Your task to perform on an android device: See recent photos Image 0: 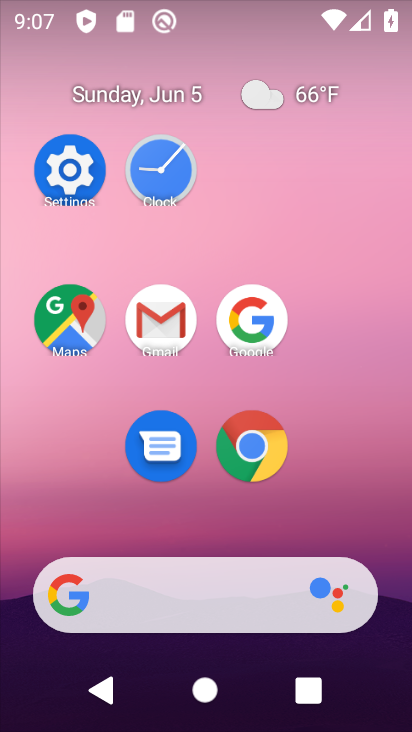
Step 0: drag from (353, 479) to (334, 159)
Your task to perform on an android device: See recent photos Image 1: 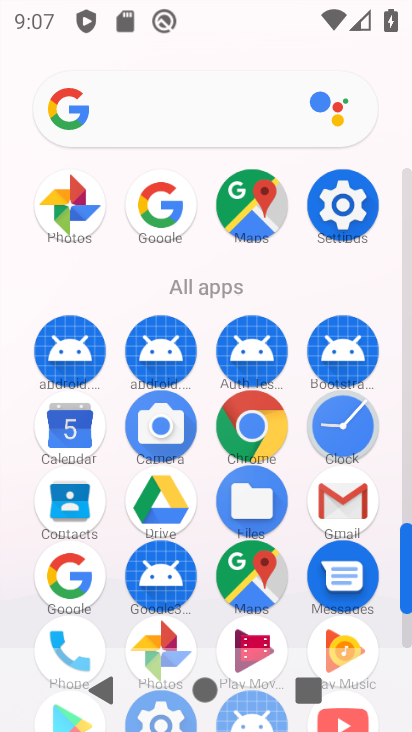
Step 1: drag from (163, 646) to (295, 287)
Your task to perform on an android device: See recent photos Image 2: 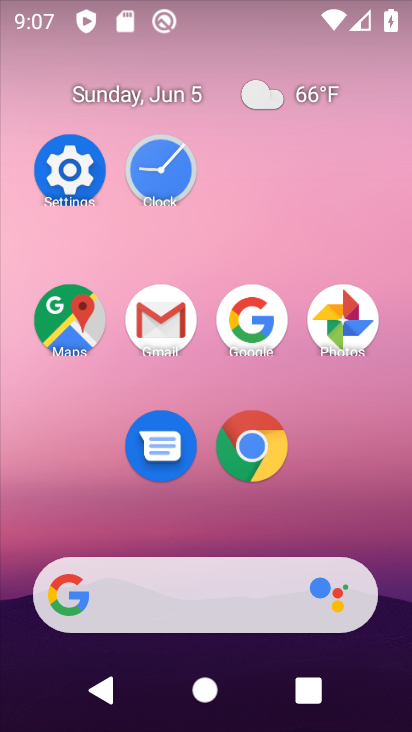
Step 2: click (338, 318)
Your task to perform on an android device: See recent photos Image 3: 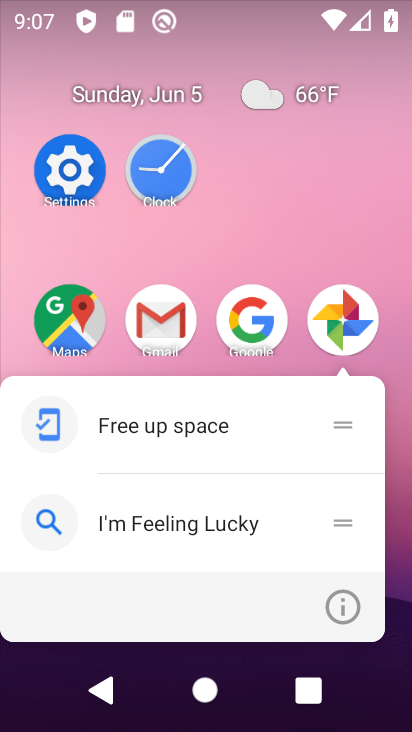
Step 3: click (338, 319)
Your task to perform on an android device: See recent photos Image 4: 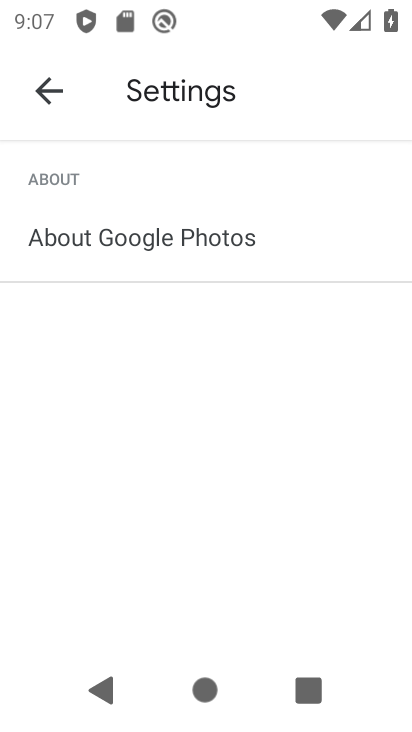
Step 4: click (27, 95)
Your task to perform on an android device: See recent photos Image 5: 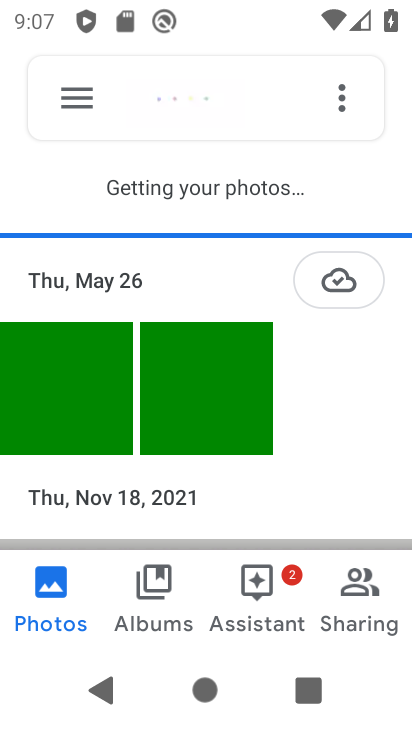
Step 5: click (73, 387)
Your task to perform on an android device: See recent photos Image 6: 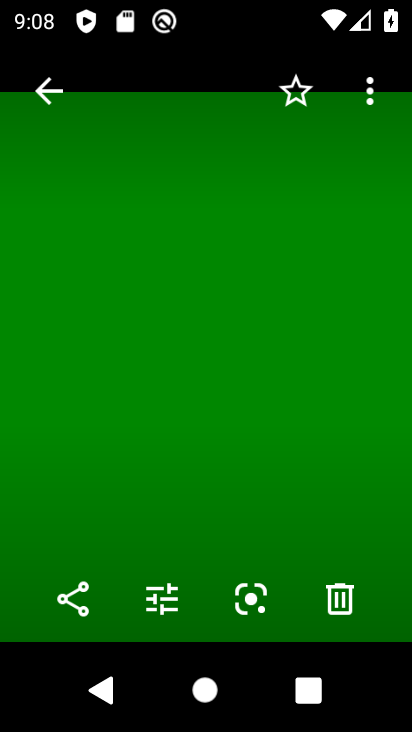
Step 6: task complete